Your task to perform on an android device: move a message to another label in the gmail app Image 0: 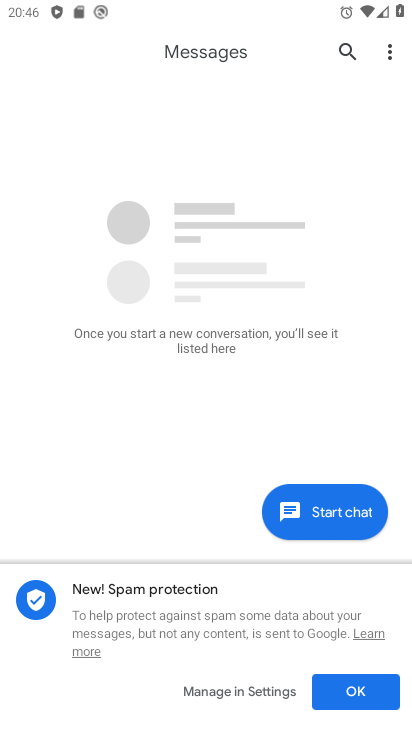
Step 0: press home button
Your task to perform on an android device: move a message to another label in the gmail app Image 1: 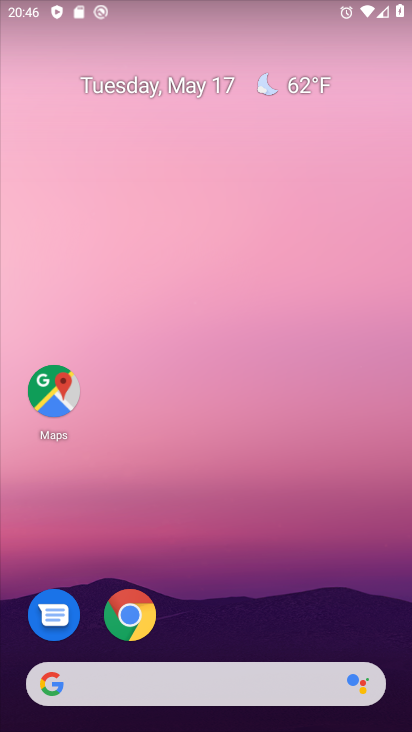
Step 1: drag from (273, 564) to (236, 94)
Your task to perform on an android device: move a message to another label in the gmail app Image 2: 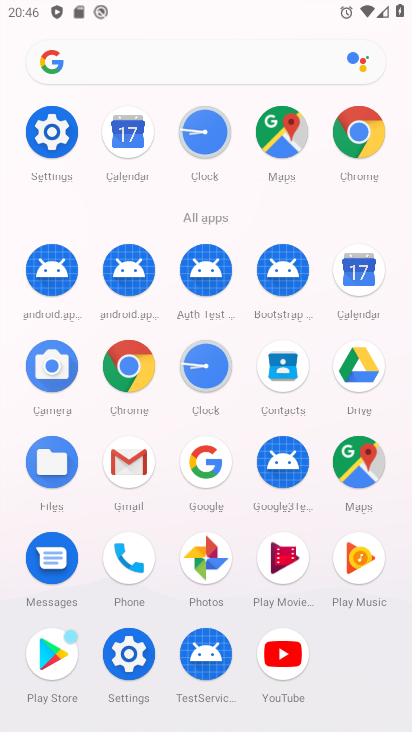
Step 2: click (122, 454)
Your task to perform on an android device: move a message to another label in the gmail app Image 3: 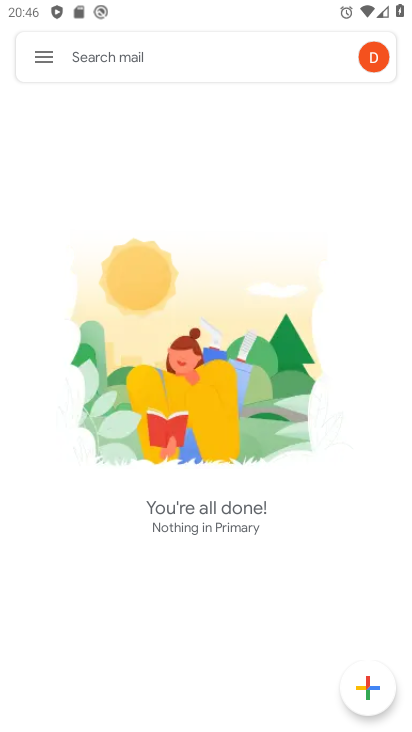
Step 3: click (42, 59)
Your task to perform on an android device: move a message to another label in the gmail app Image 4: 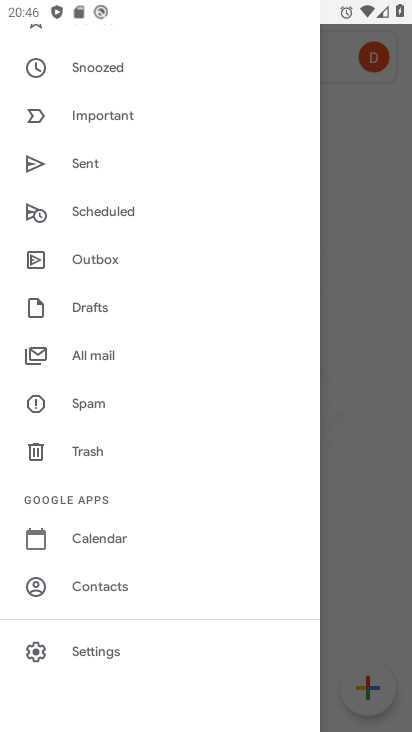
Step 4: drag from (146, 83) to (200, 521)
Your task to perform on an android device: move a message to another label in the gmail app Image 5: 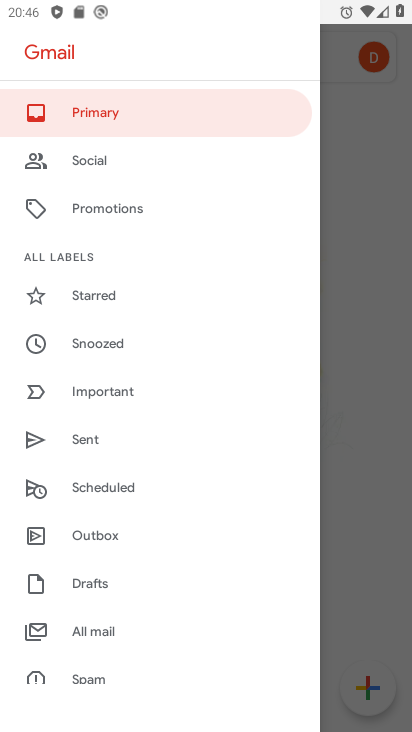
Step 5: click (82, 110)
Your task to perform on an android device: move a message to another label in the gmail app Image 6: 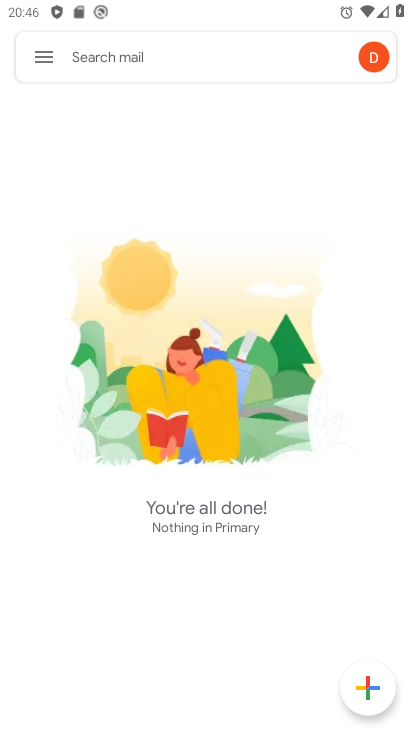
Step 6: task complete